Your task to perform on an android device: Go to Yahoo.com Image 0: 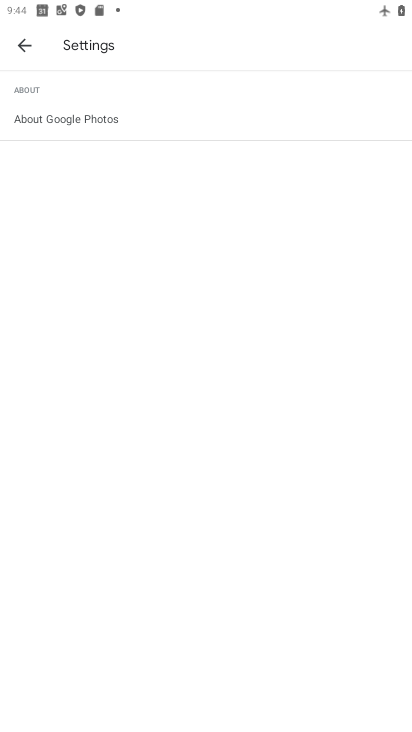
Step 0: press home button
Your task to perform on an android device: Go to Yahoo.com Image 1: 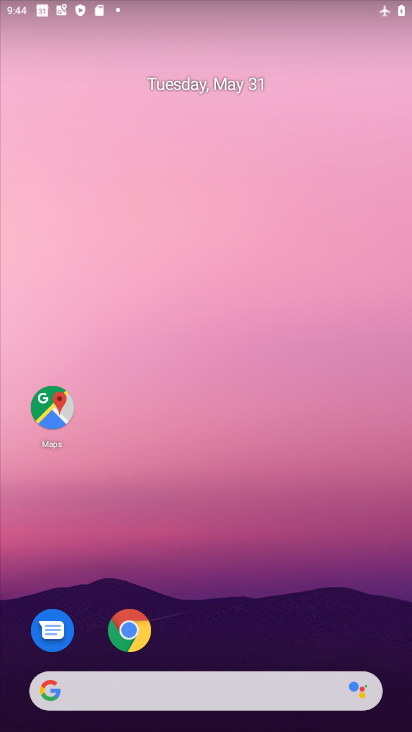
Step 1: drag from (180, 600) to (172, 206)
Your task to perform on an android device: Go to Yahoo.com Image 2: 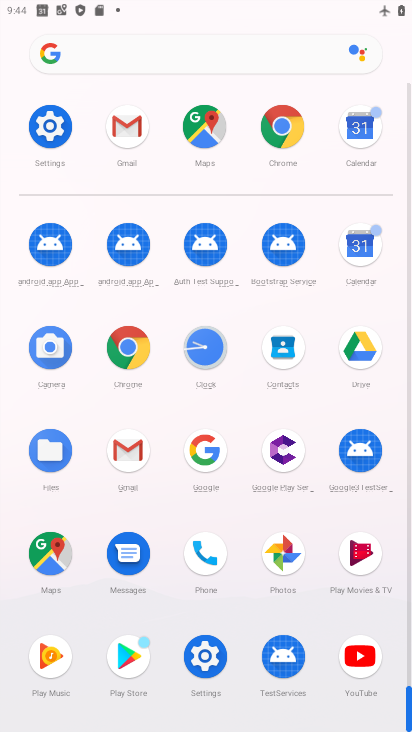
Step 2: click (140, 340)
Your task to perform on an android device: Go to Yahoo.com Image 3: 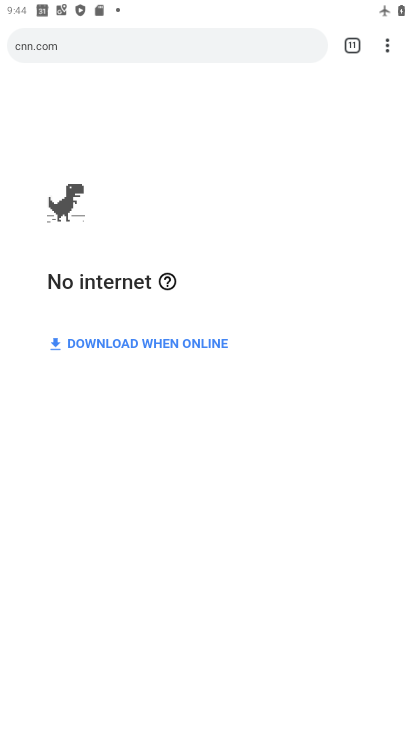
Step 3: click (394, 35)
Your task to perform on an android device: Go to Yahoo.com Image 4: 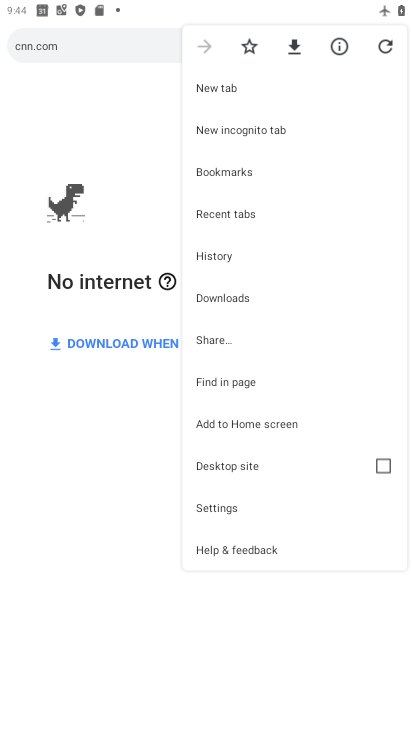
Step 4: click (215, 80)
Your task to perform on an android device: Go to Yahoo.com Image 5: 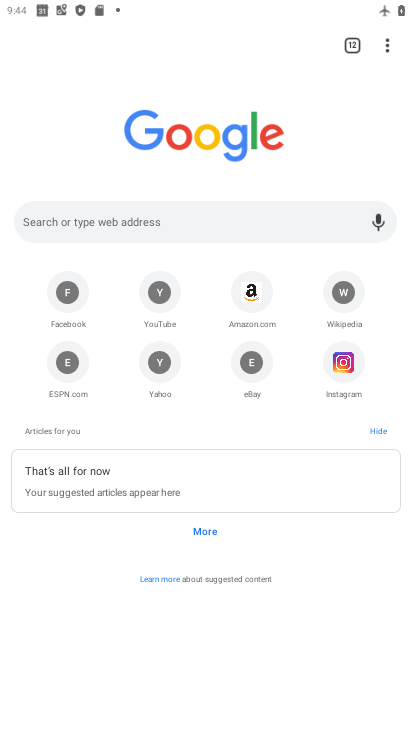
Step 5: click (157, 368)
Your task to perform on an android device: Go to Yahoo.com Image 6: 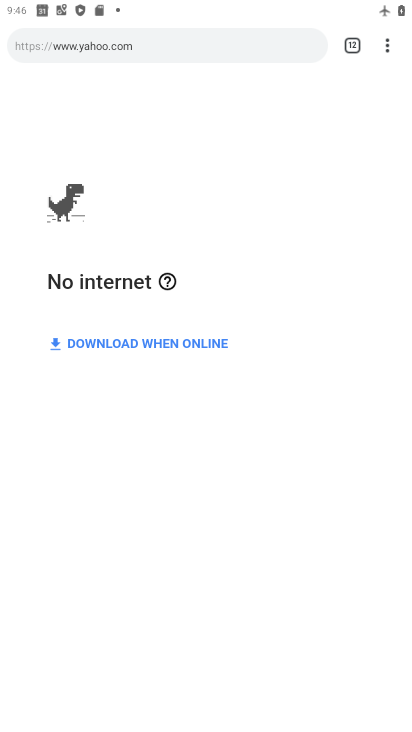
Step 6: task complete